Your task to perform on an android device: Open the map Image 0: 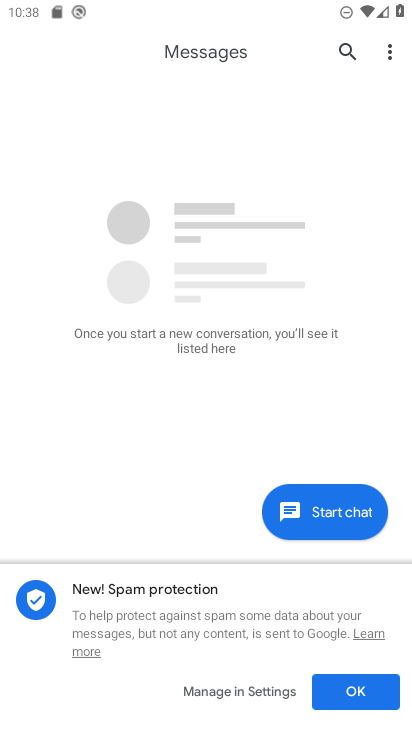
Step 0: press home button
Your task to perform on an android device: Open the map Image 1: 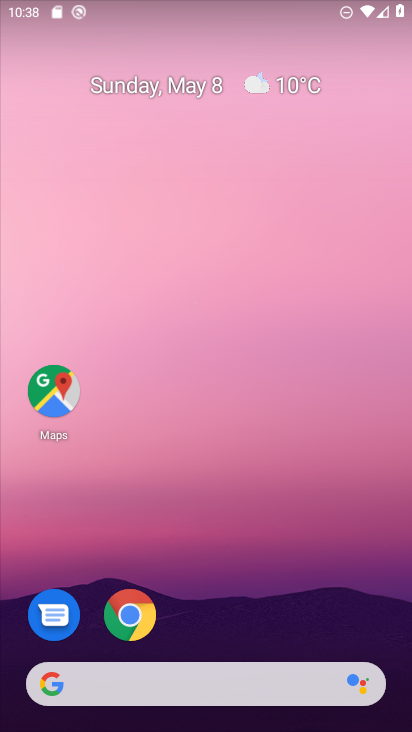
Step 1: drag from (305, 556) to (276, 36)
Your task to perform on an android device: Open the map Image 2: 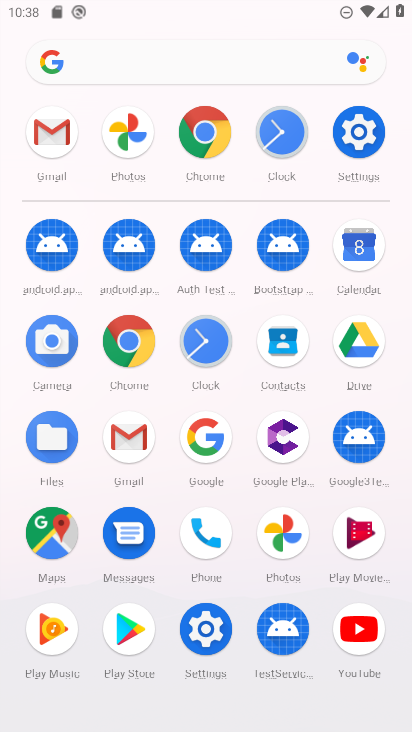
Step 2: click (51, 527)
Your task to perform on an android device: Open the map Image 3: 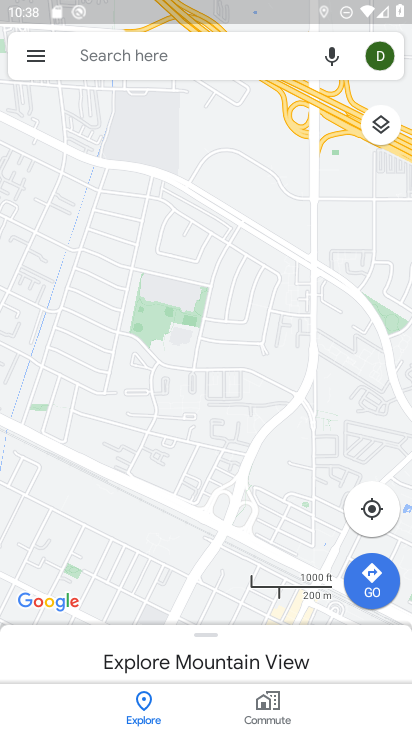
Step 3: task complete